Your task to perform on an android device: change the clock display to analog Image 0: 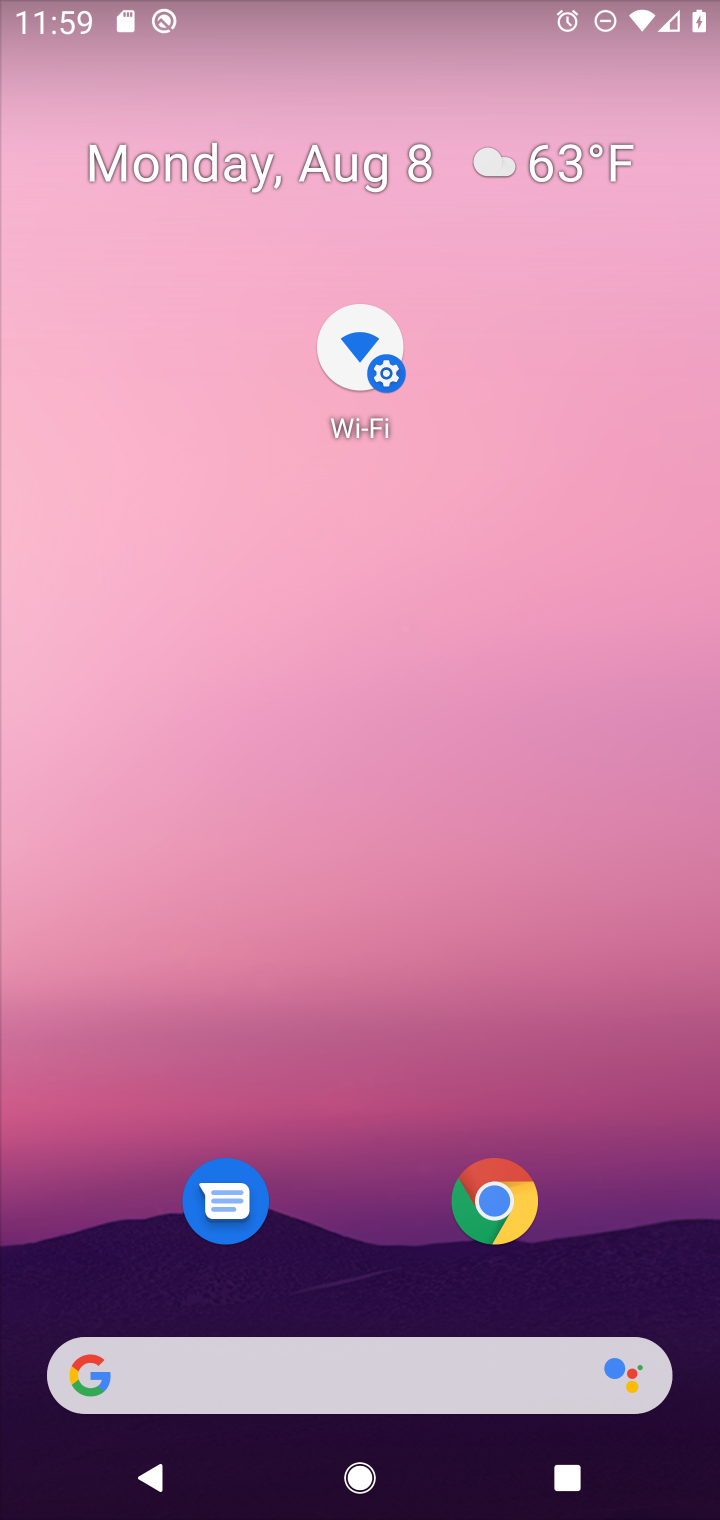
Step 0: press home button
Your task to perform on an android device: change the clock display to analog Image 1: 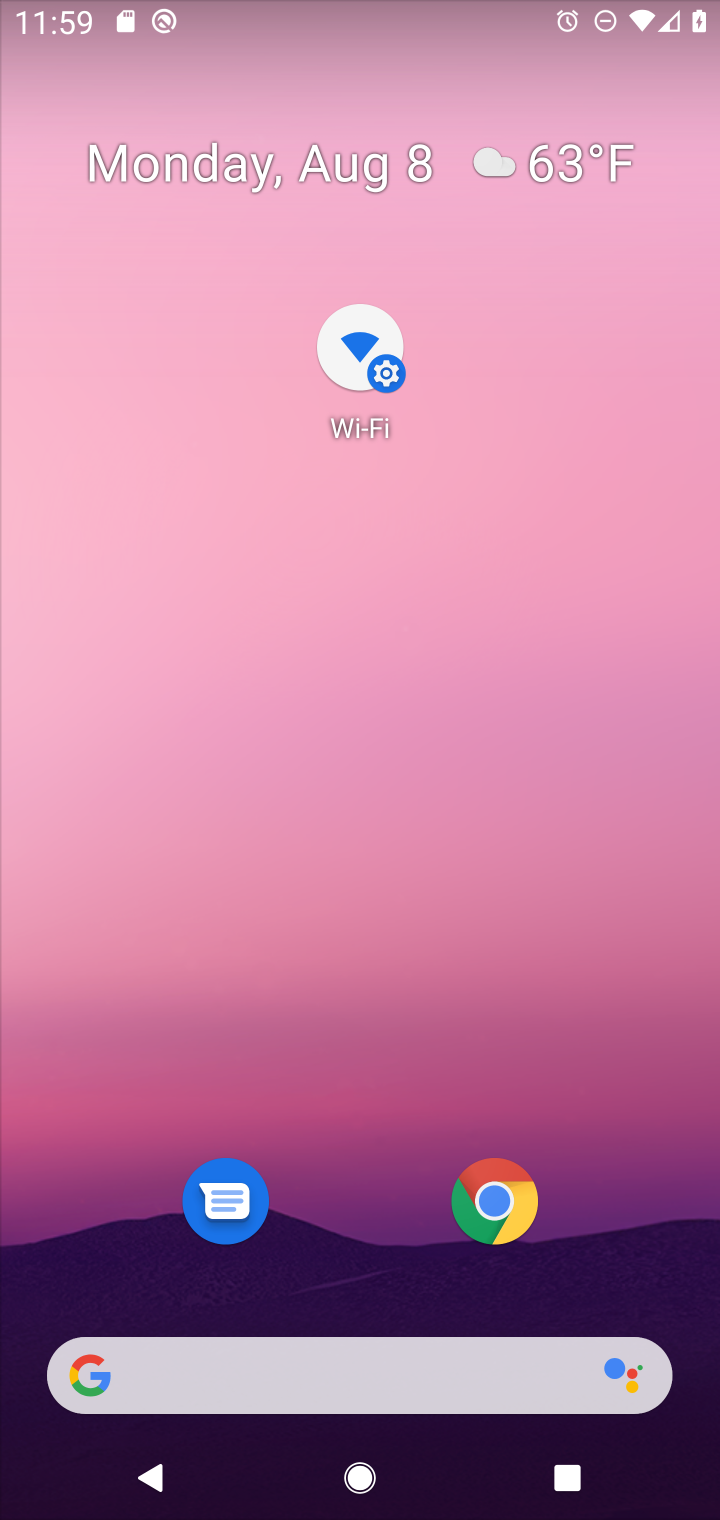
Step 1: drag from (605, 1152) to (627, 69)
Your task to perform on an android device: change the clock display to analog Image 2: 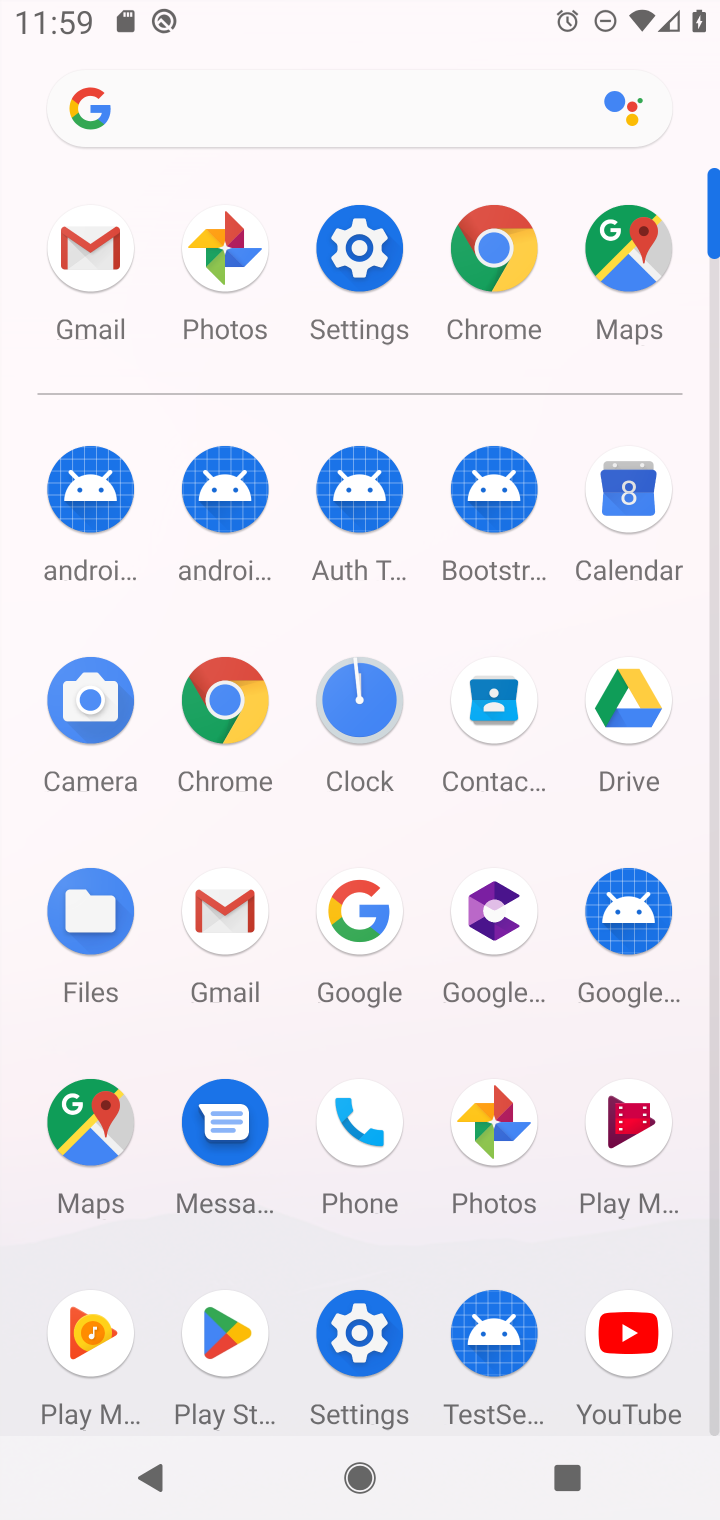
Step 2: click (364, 709)
Your task to perform on an android device: change the clock display to analog Image 3: 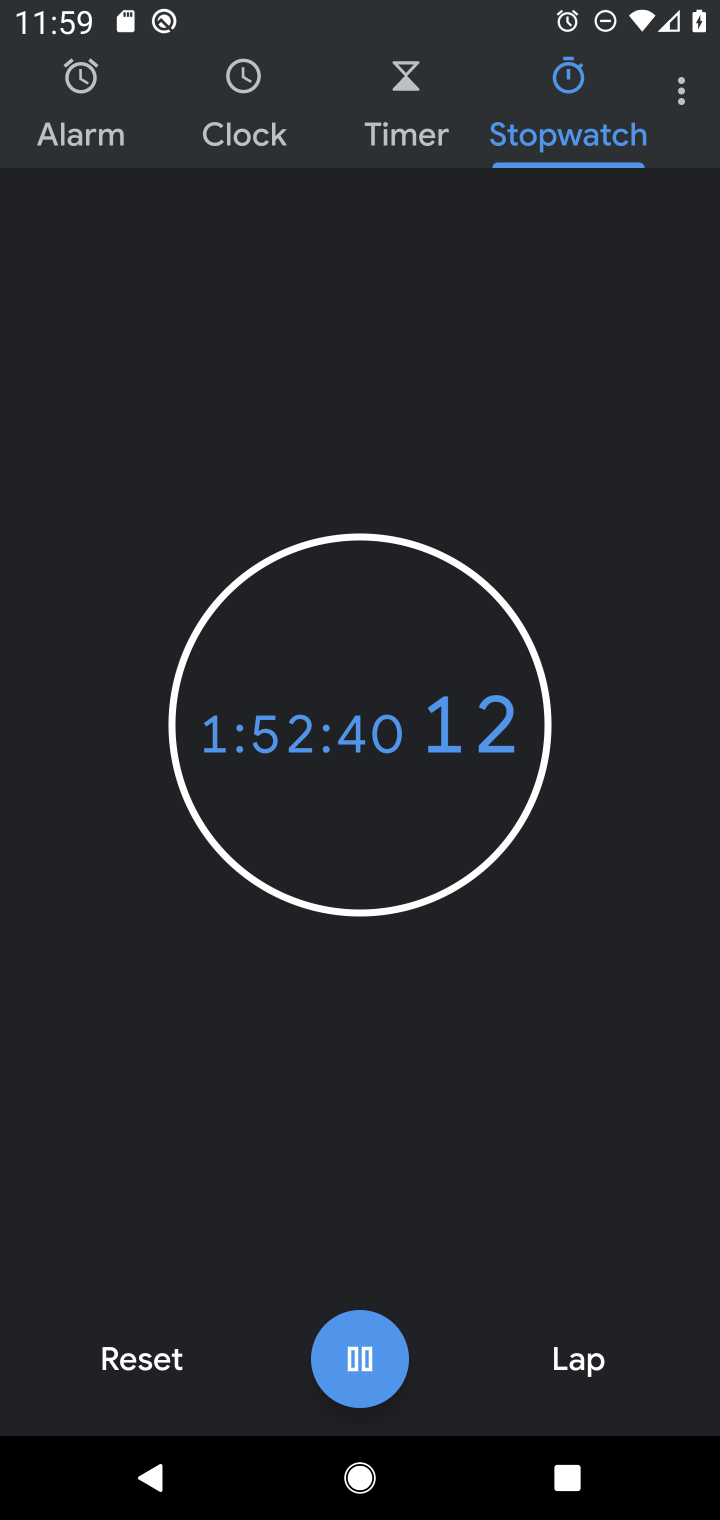
Step 3: click (684, 97)
Your task to perform on an android device: change the clock display to analog Image 4: 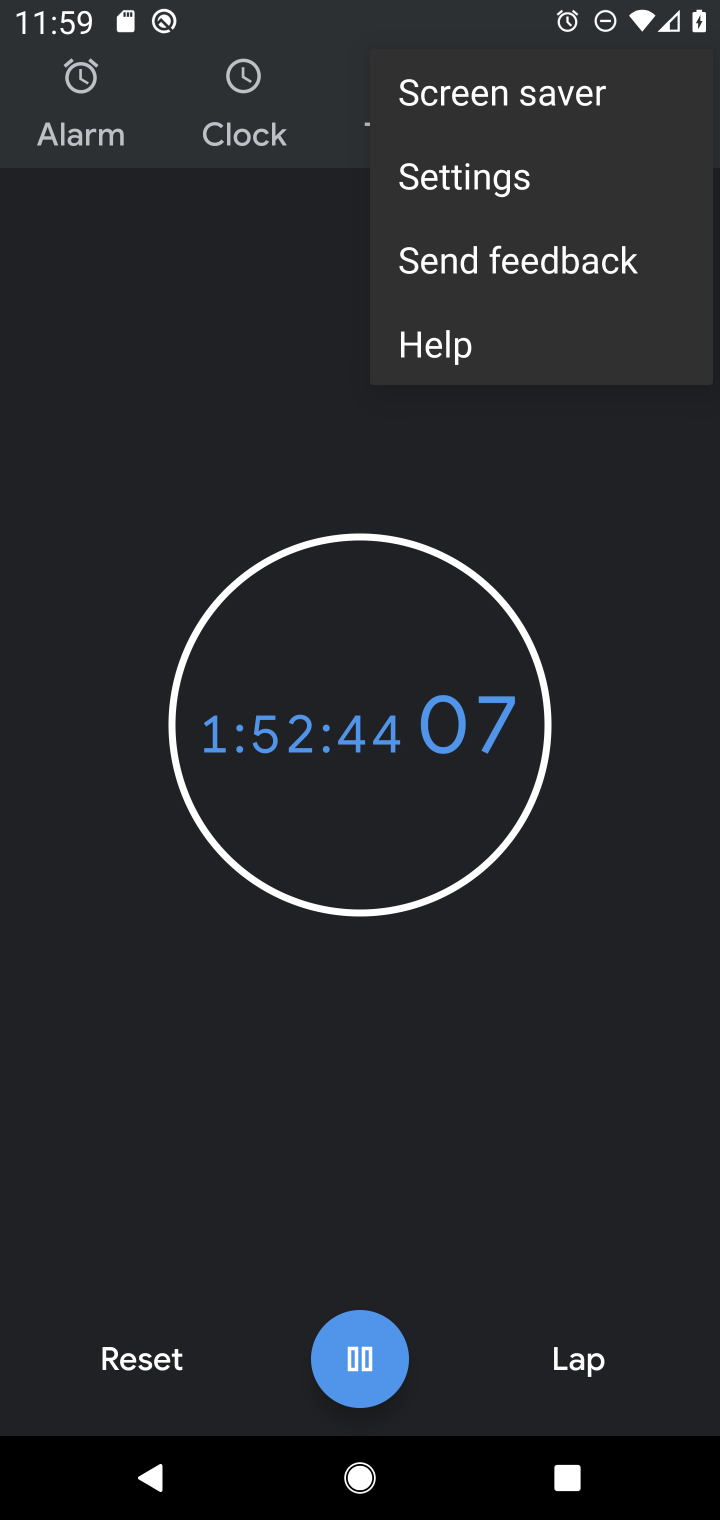
Step 4: click (498, 175)
Your task to perform on an android device: change the clock display to analog Image 5: 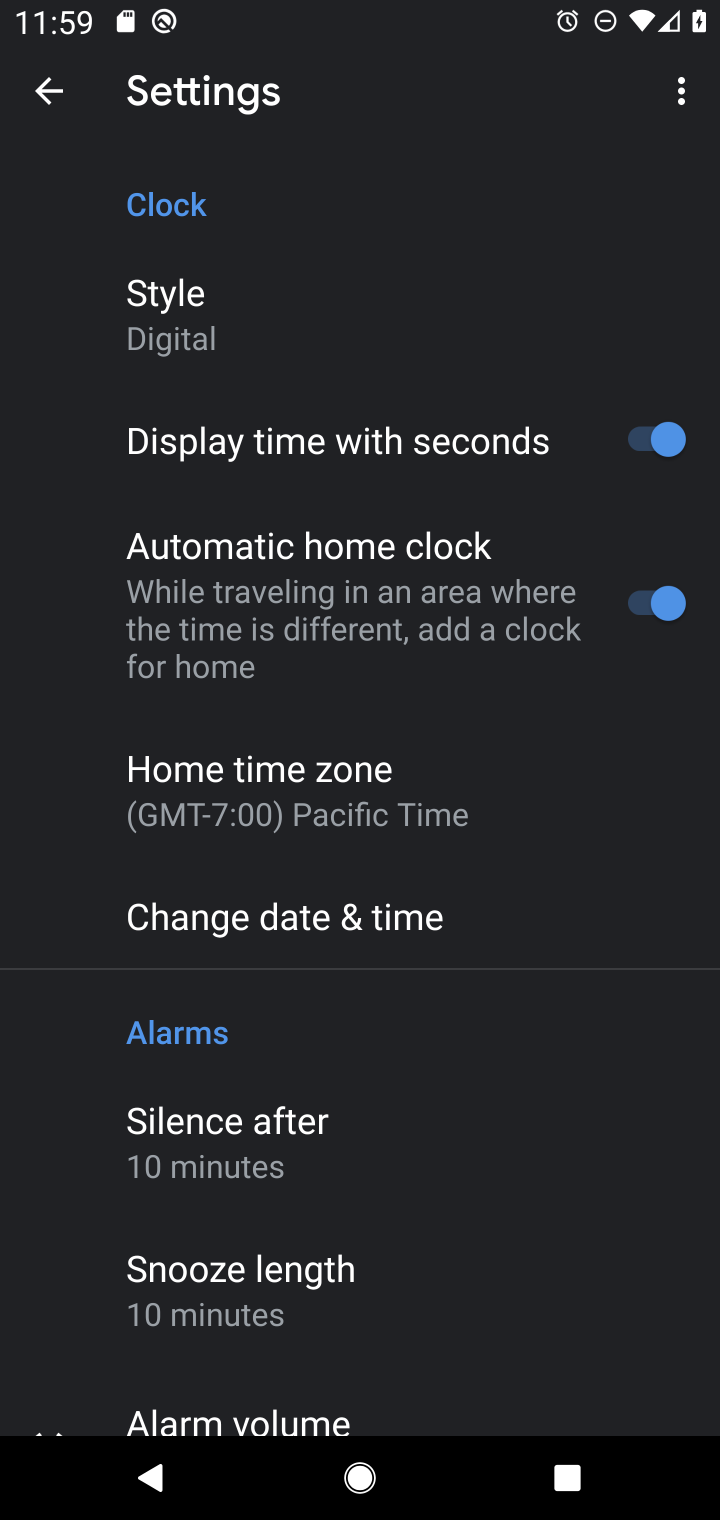
Step 5: drag from (577, 1166) to (588, 802)
Your task to perform on an android device: change the clock display to analog Image 6: 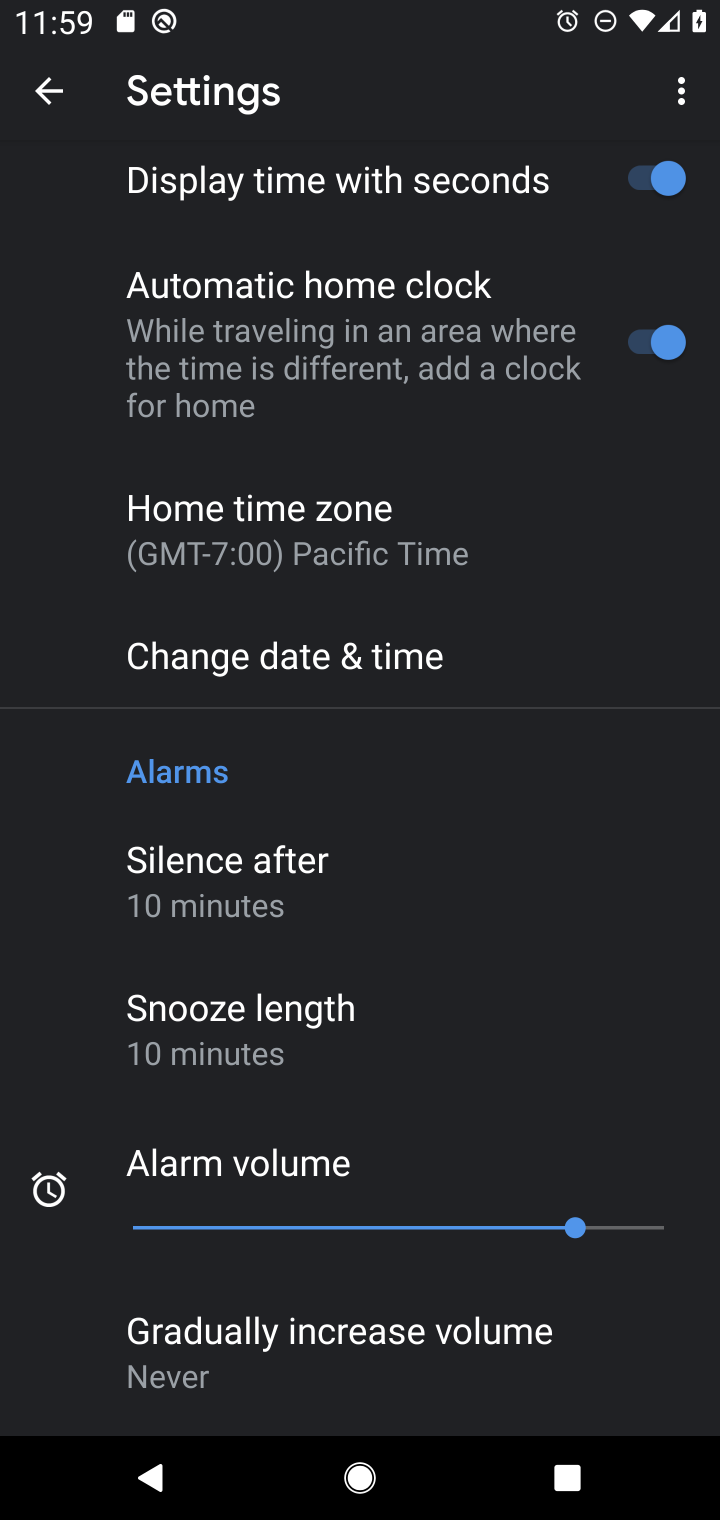
Step 6: drag from (598, 1052) to (631, 717)
Your task to perform on an android device: change the clock display to analog Image 7: 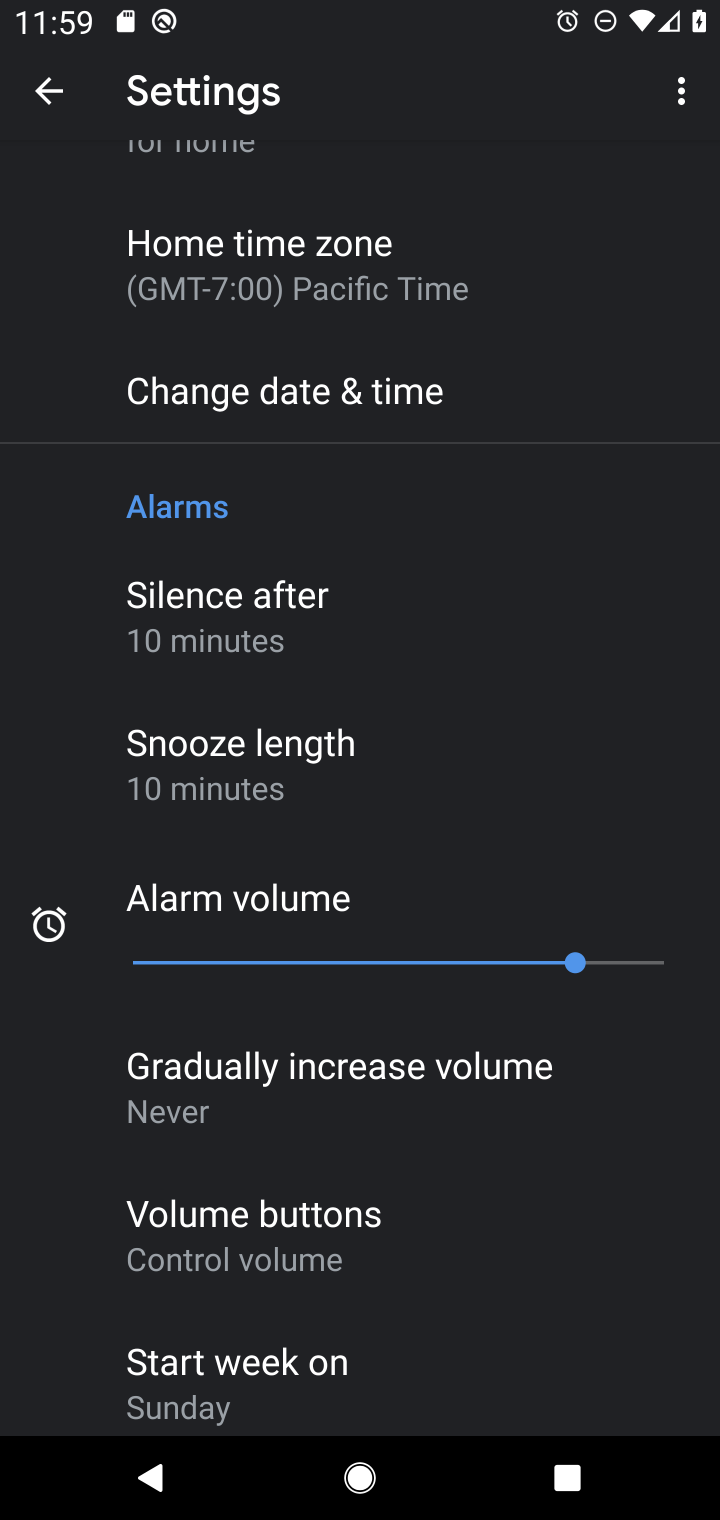
Step 7: drag from (617, 1147) to (619, 902)
Your task to perform on an android device: change the clock display to analog Image 8: 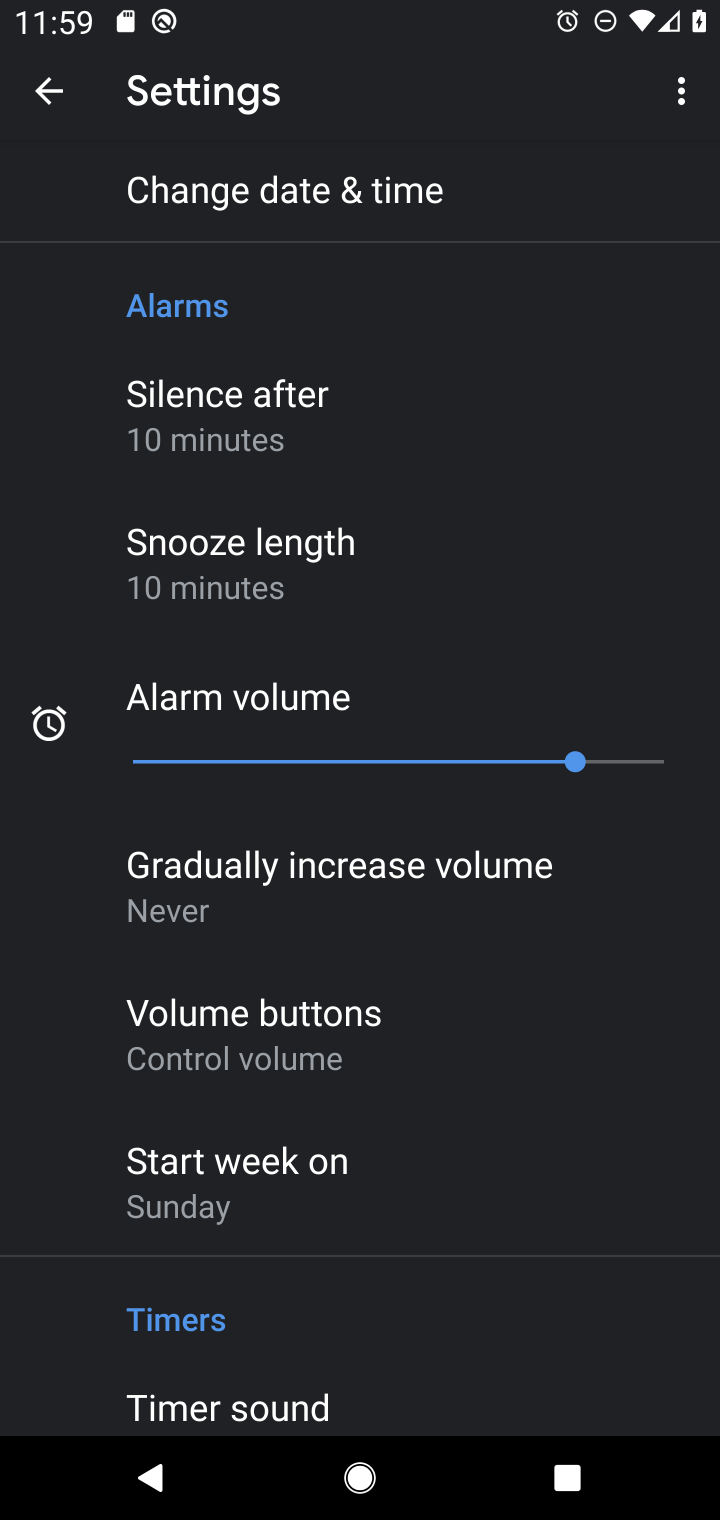
Step 8: drag from (627, 1187) to (683, 782)
Your task to perform on an android device: change the clock display to analog Image 9: 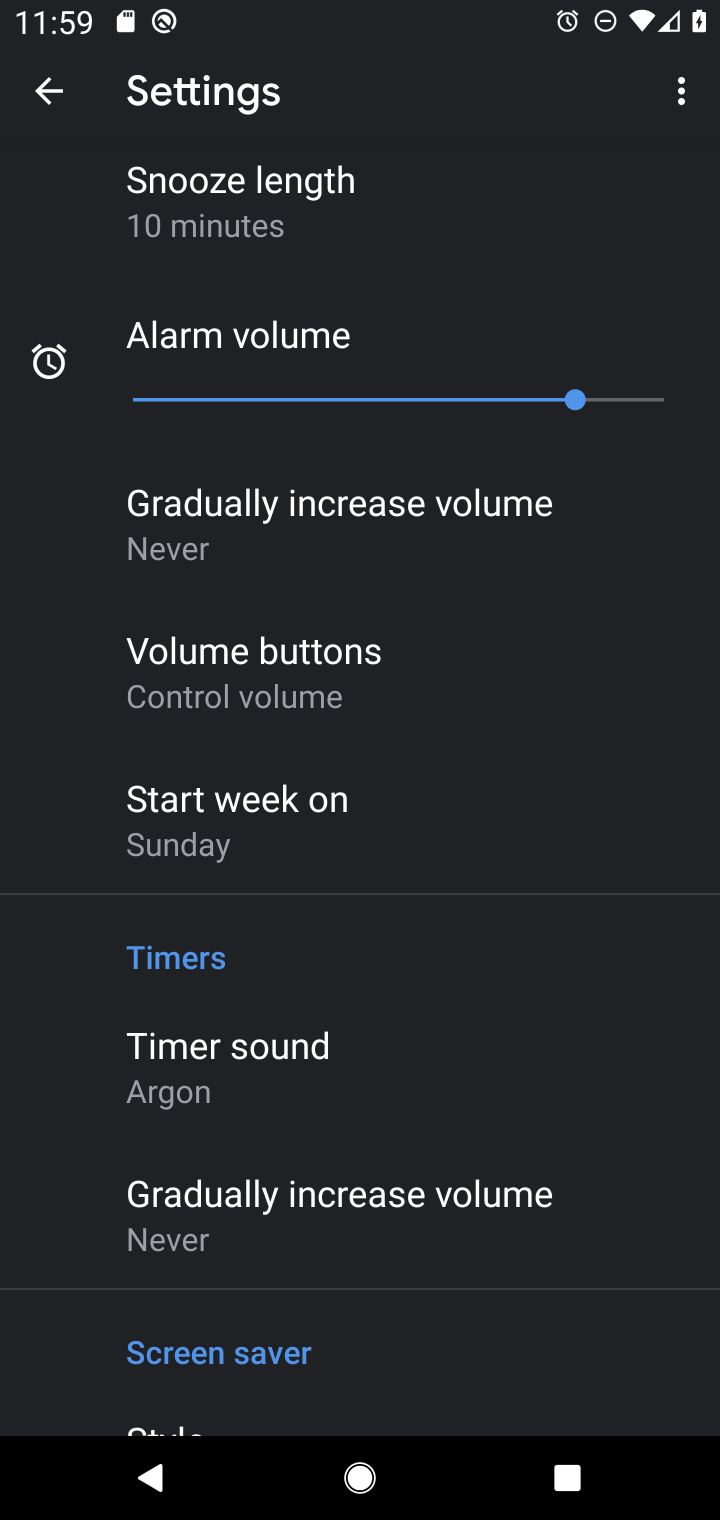
Step 9: drag from (630, 1285) to (645, 771)
Your task to perform on an android device: change the clock display to analog Image 10: 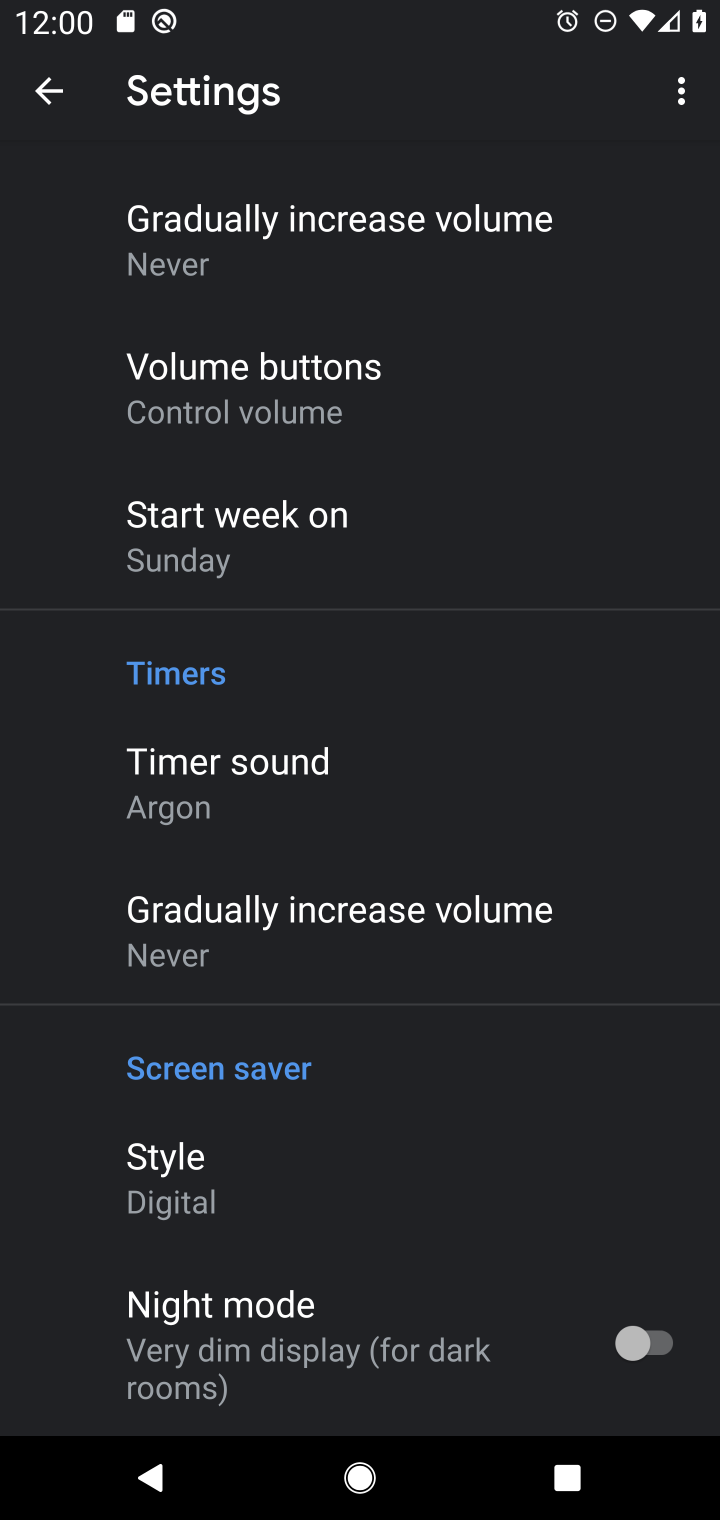
Step 10: drag from (661, 333) to (637, 613)
Your task to perform on an android device: change the clock display to analog Image 11: 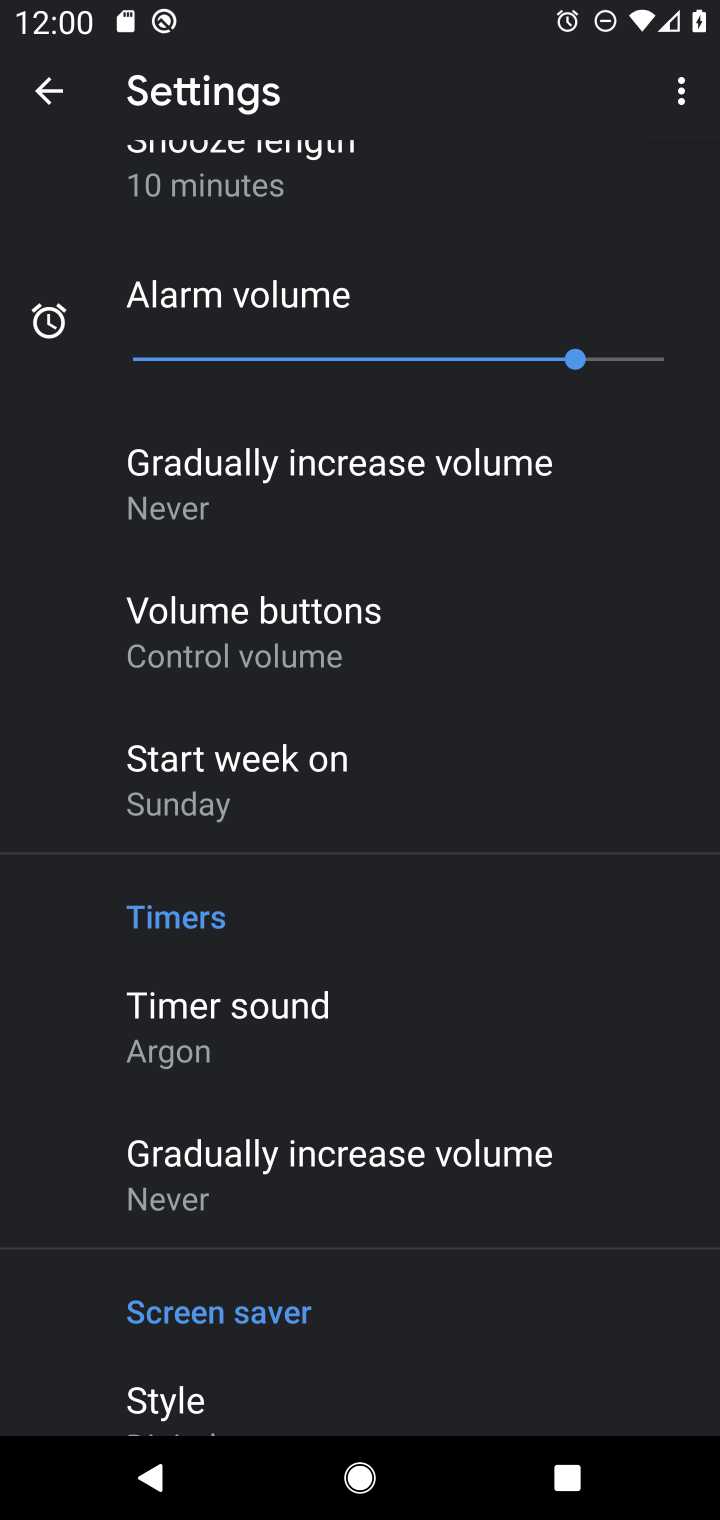
Step 11: drag from (693, 266) to (669, 550)
Your task to perform on an android device: change the clock display to analog Image 12: 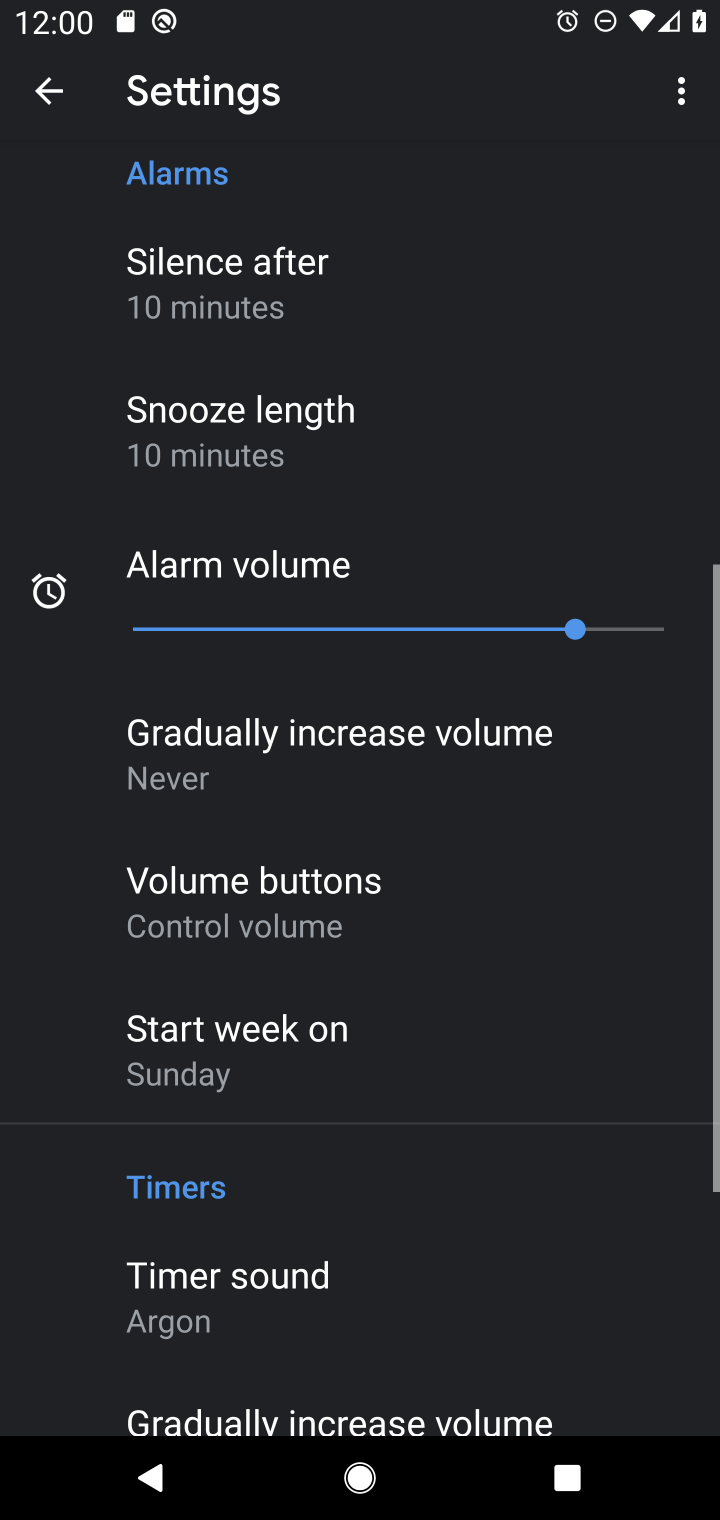
Step 12: drag from (673, 303) to (677, 656)
Your task to perform on an android device: change the clock display to analog Image 13: 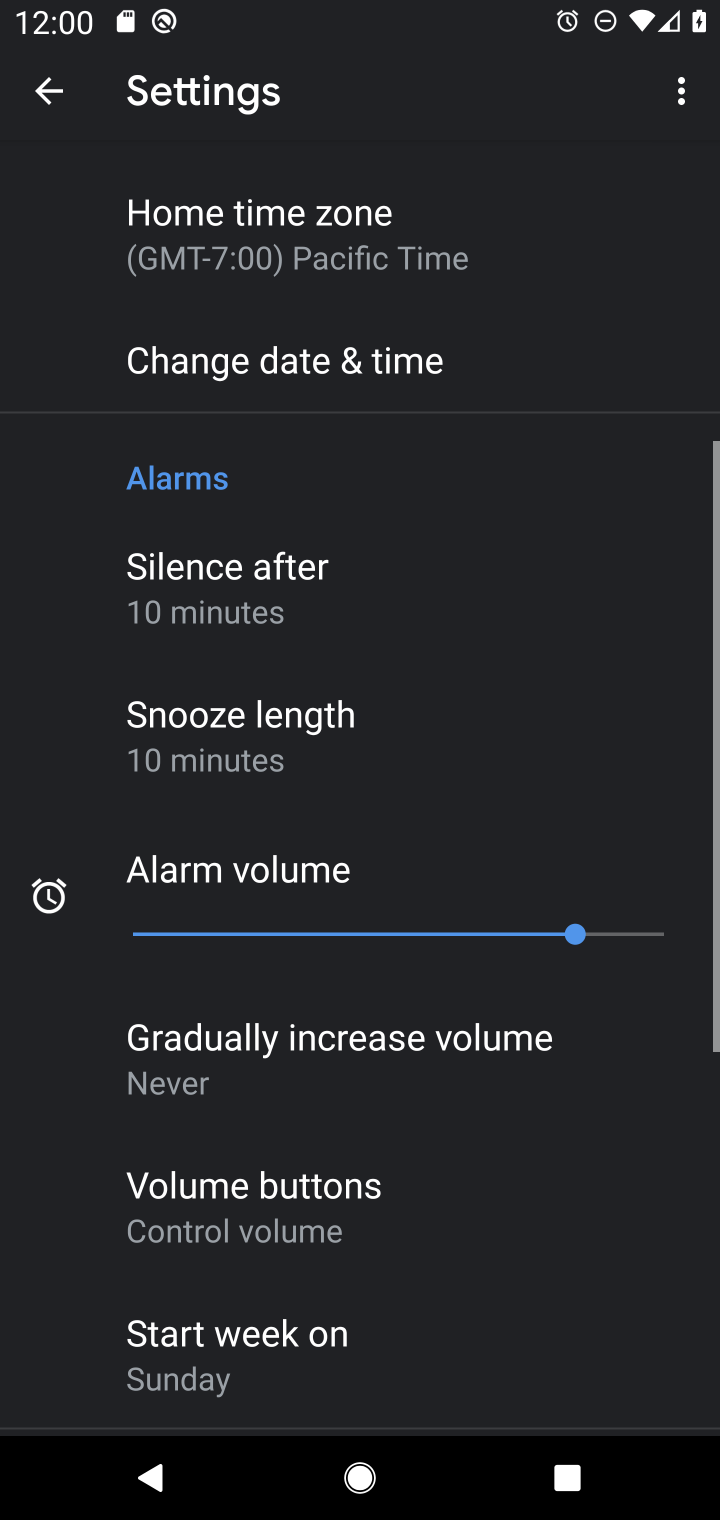
Step 13: drag from (654, 388) to (673, 731)
Your task to perform on an android device: change the clock display to analog Image 14: 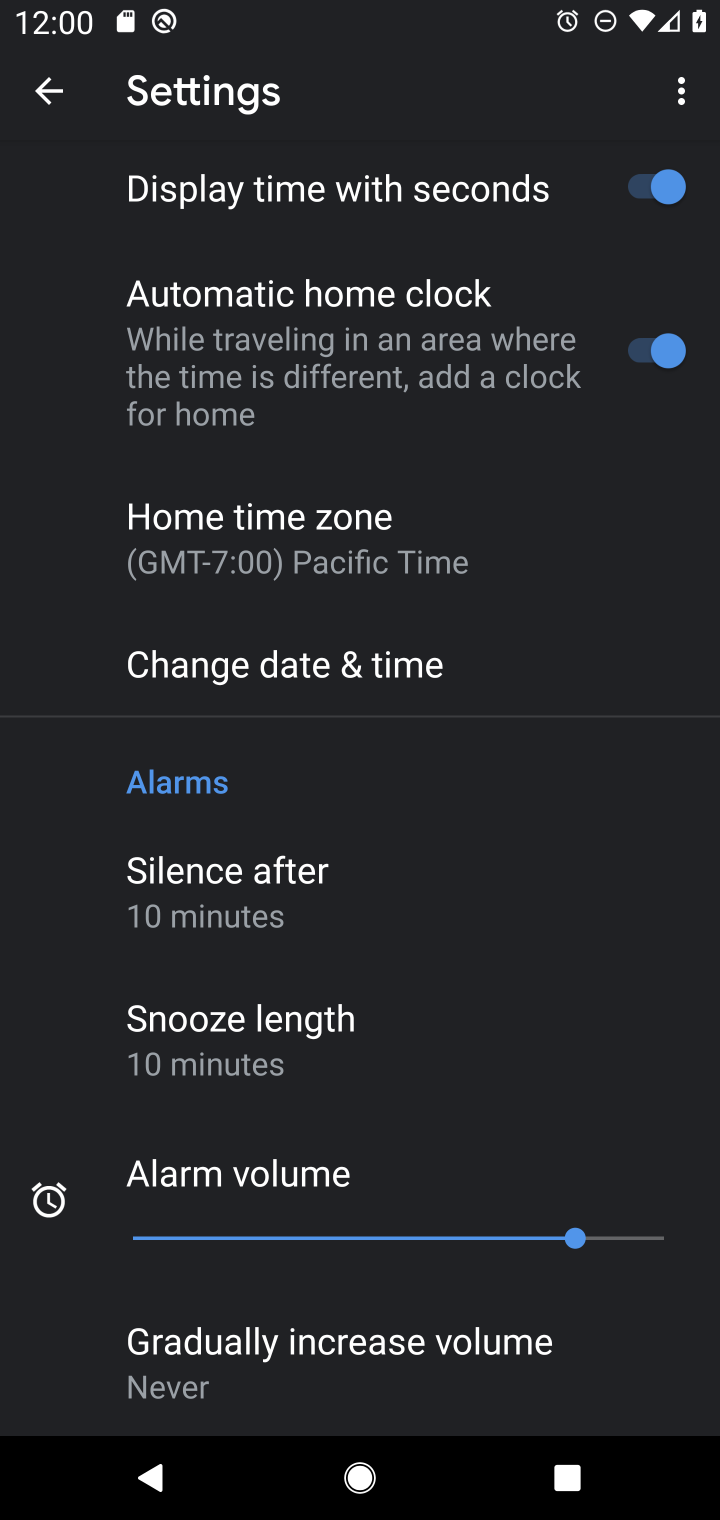
Step 14: drag from (662, 492) to (675, 849)
Your task to perform on an android device: change the clock display to analog Image 15: 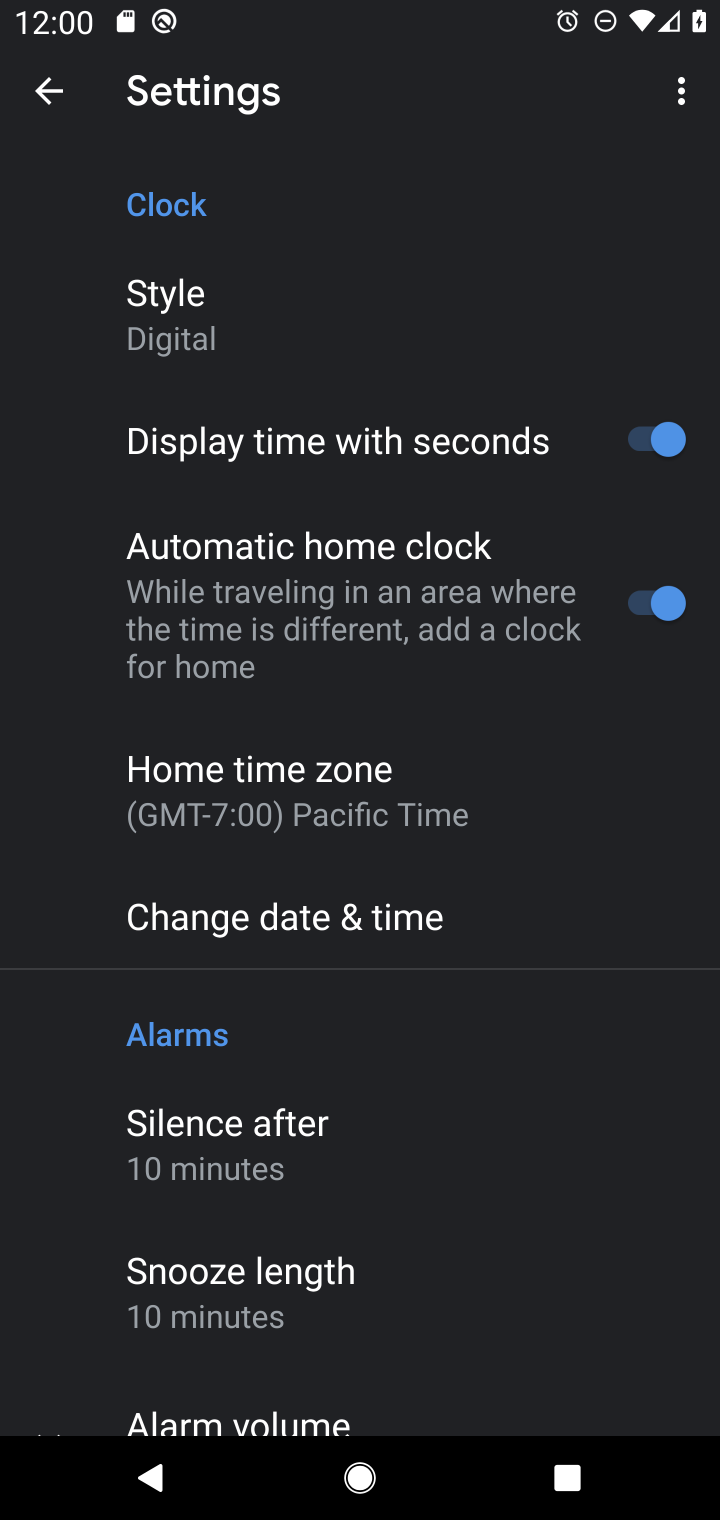
Step 15: drag from (554, 284) to (587, 740)
Your task to perform on an android device: change the clock display to analog Image 16: 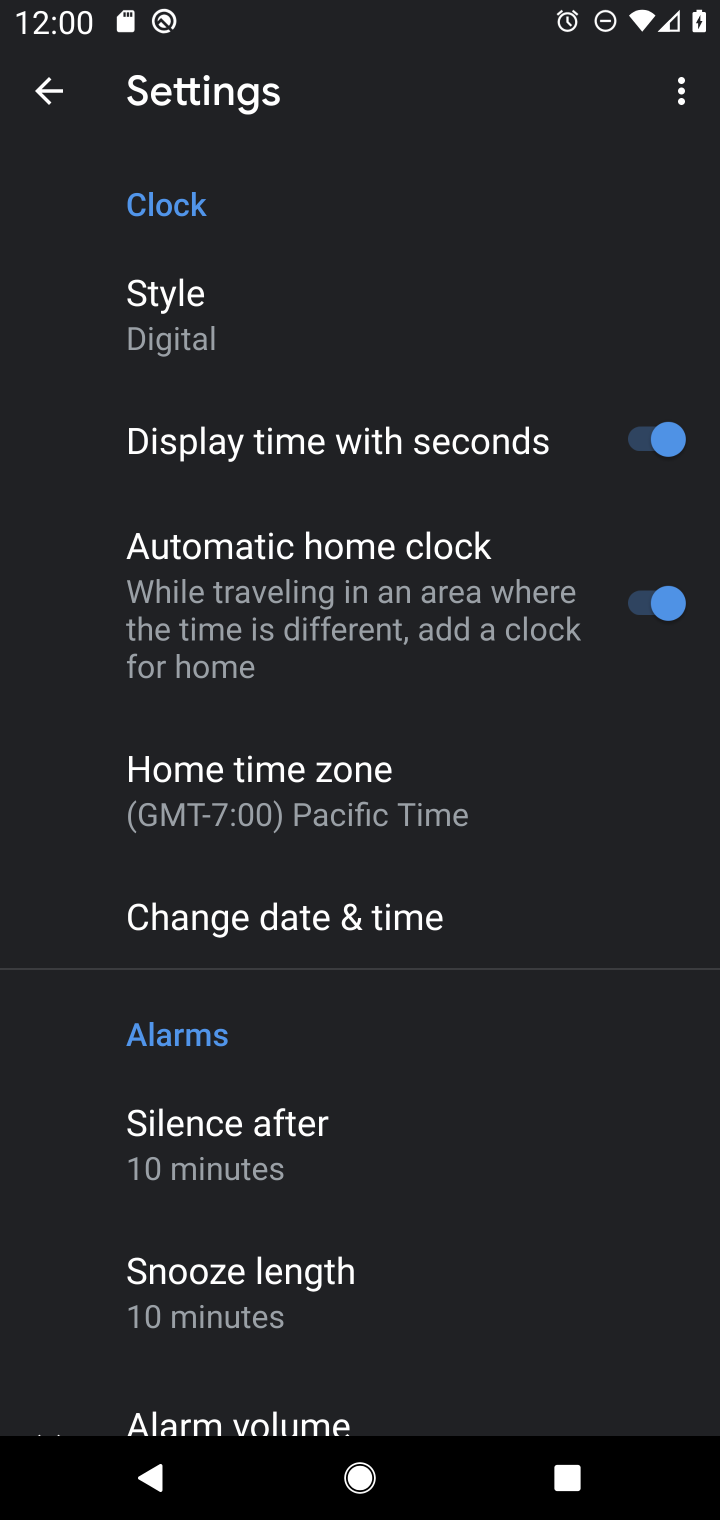
Step 16: click (208, 316)
Your task to perform on an android device: change the clock display to analog Image 17: 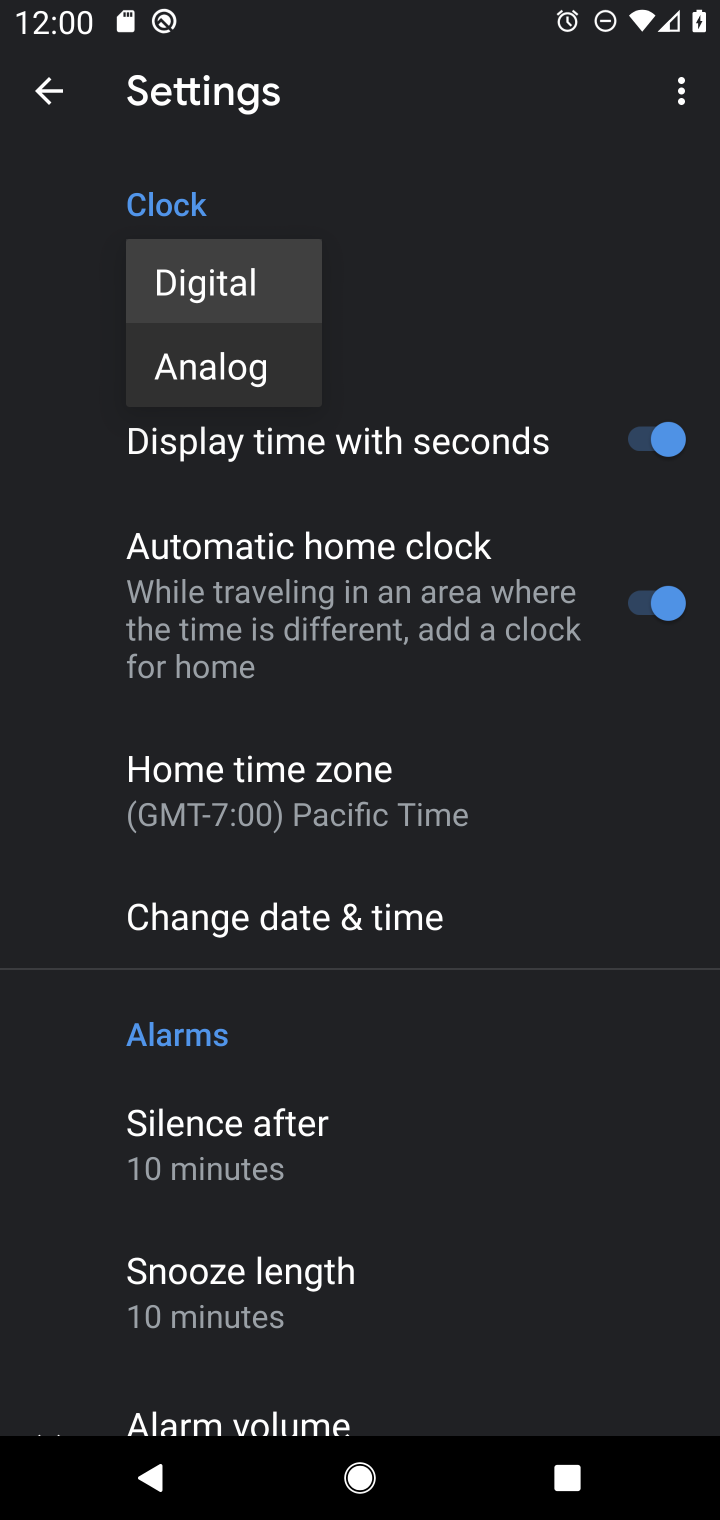
Step 17: click (245, 349)
Your task to perform on an android device: change the clock display to analog Image 18: 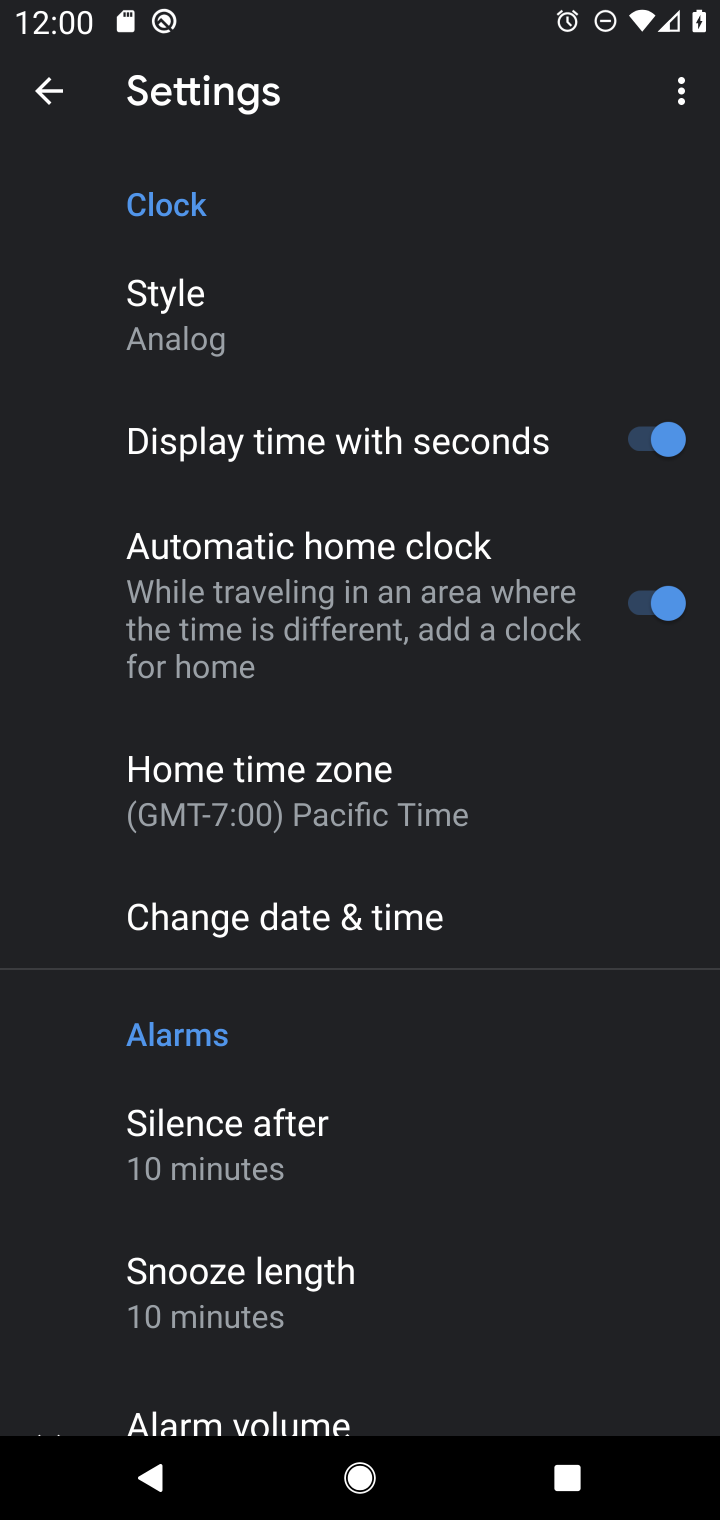
Step 18: task complete